Your task to perform on an android device: Open Android settings Image 0: 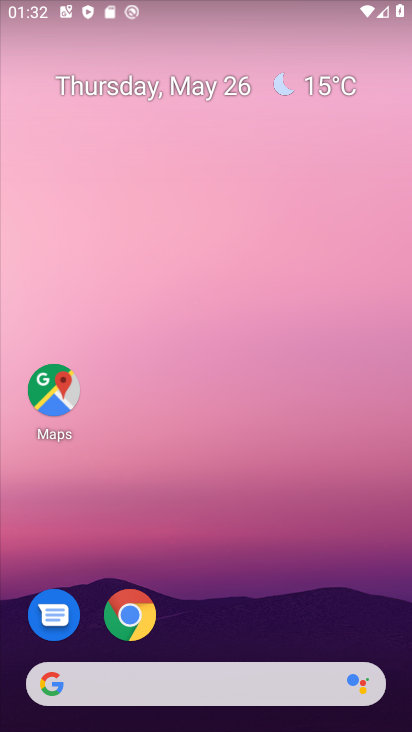
Step 0: drag from (226, 618) to (240, 19)
Your task to perform on an android device: Open Android settings Image 1: 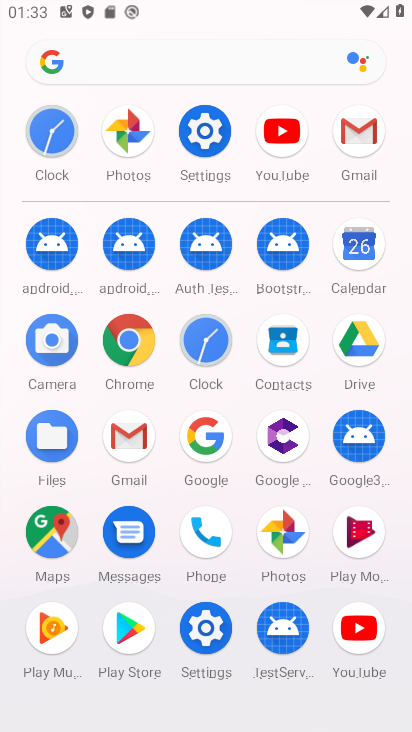
Step 1: click (202, 631)
Your task to perform on an android device: Open Android settings Image 2: 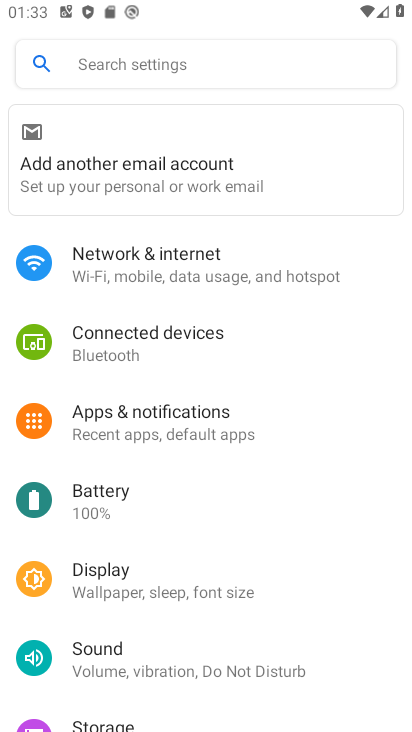
Step 2: drag from (184, 638) to (244, 182)
Your task to perform on an android device: Open Android settings Image 3: 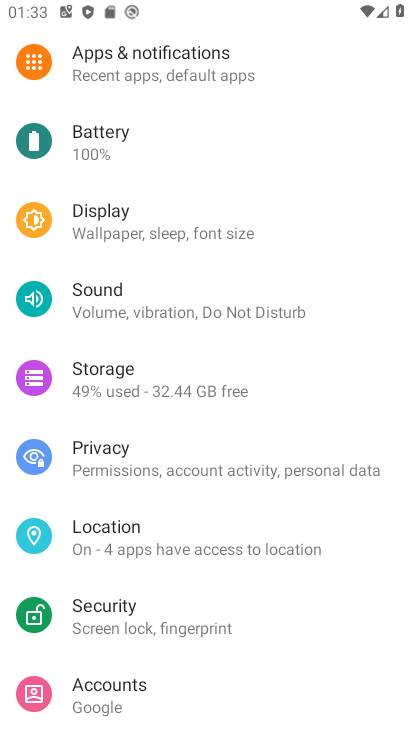
Step 3: drag from (184, 595) to (226, 26)
Your task to perform on an android device: Open Android settings Image 4: 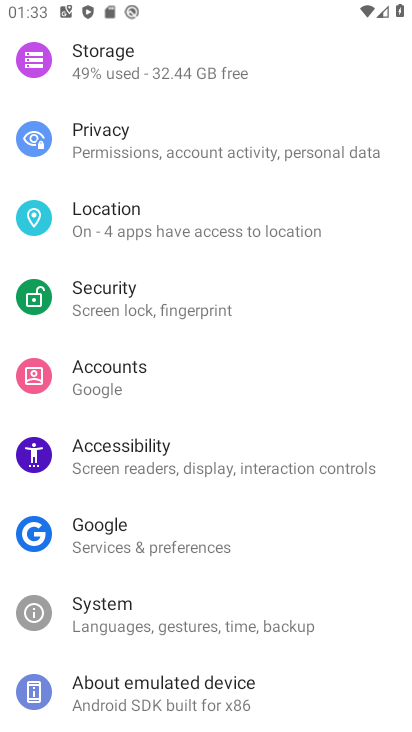
Step 4: drag from (141, 704) to (223, 87)
Your task to perform on an android device: Open Android settings Image 5: 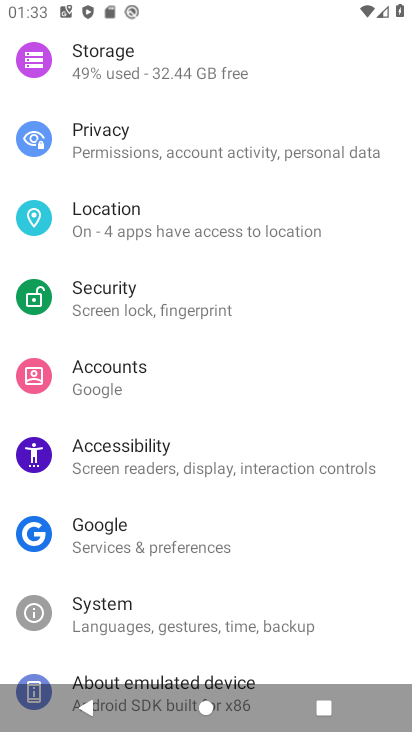
Step 5: drag from (185, 585) to (200, 198)
Your task to perform on an android device: Open Android settings Image 6: 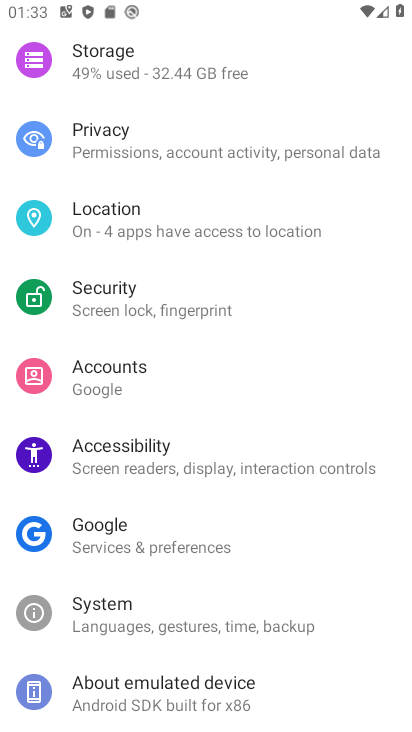
Step 6: click (117, 693)
Your task to perform on an android device: Open Android settings Image 7: 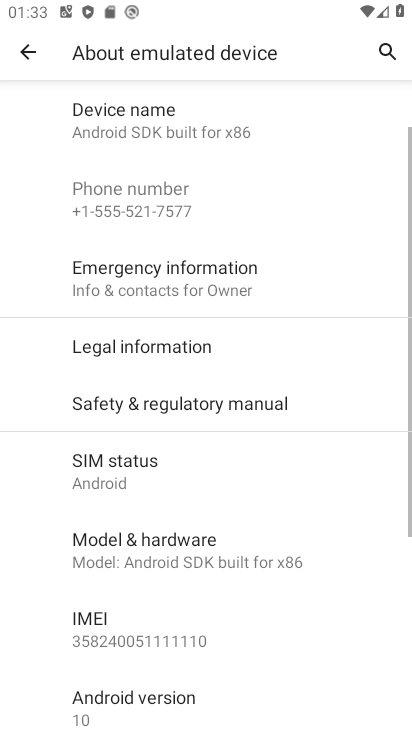
Step 7: task complete